Your task to perform on an android device: set an alarm Image 0: 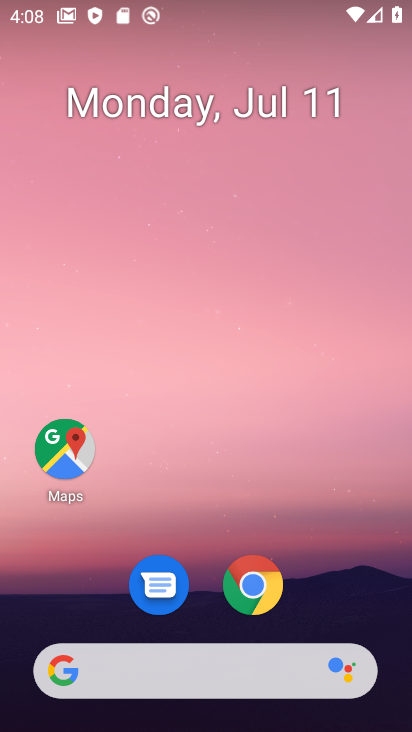
Step 0: drag from (312, 611) to (272, 116)
Your task to perform on an android device: set an alarm Image 1: 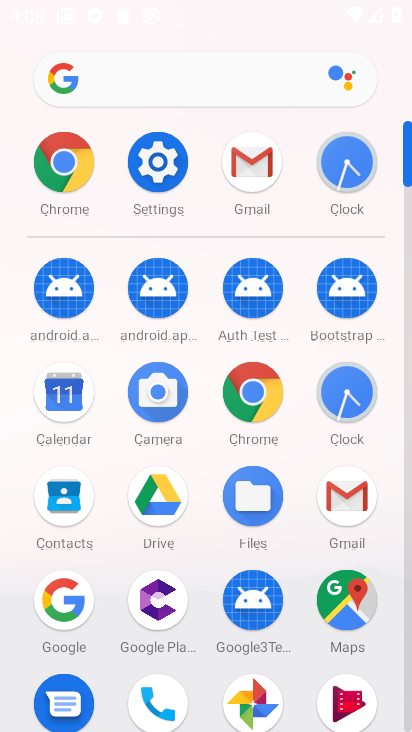
Step 1: click (338, 179)
Your task to perform on an android device: set an alarm Image 2: 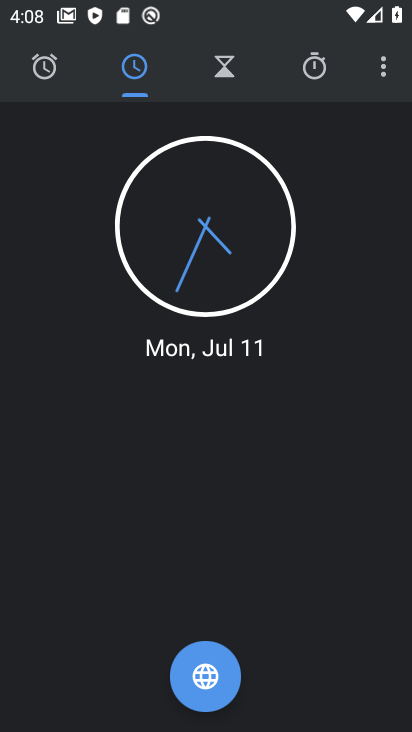
Step 2: click (51, 69)
Your task to perform on an android device: set an alarm Image 3: 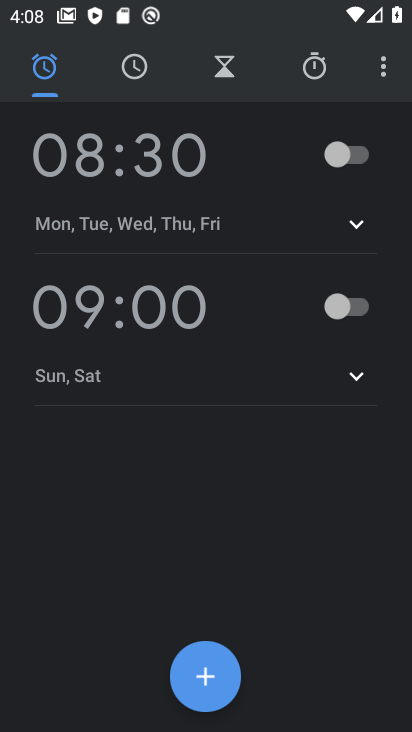
Step 3: click (193, 683)
Your task to perform on an android device: set an alarm Image 4: 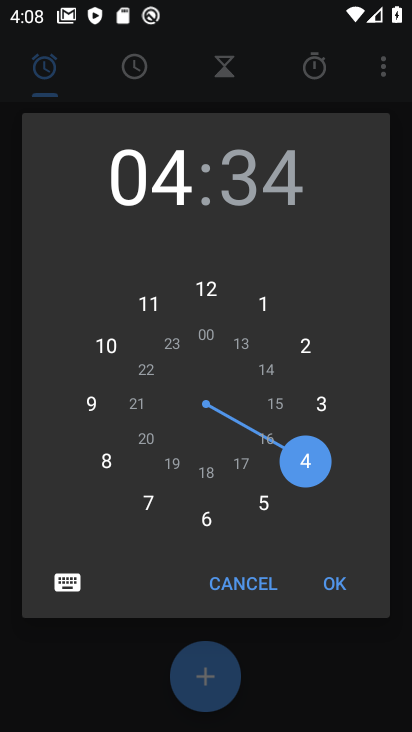
Step 4: click (258, 181)
Your task to perform on an android device: set an alarm Image 5: 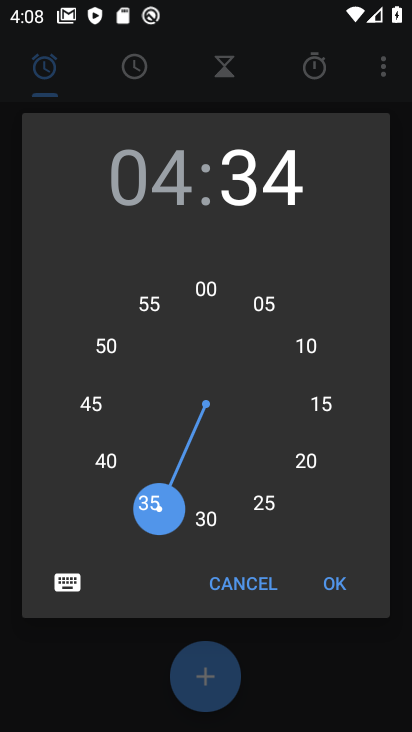
Step 5: click (212, 286)
Your task to perform on an android device: set an alarm Image 6: 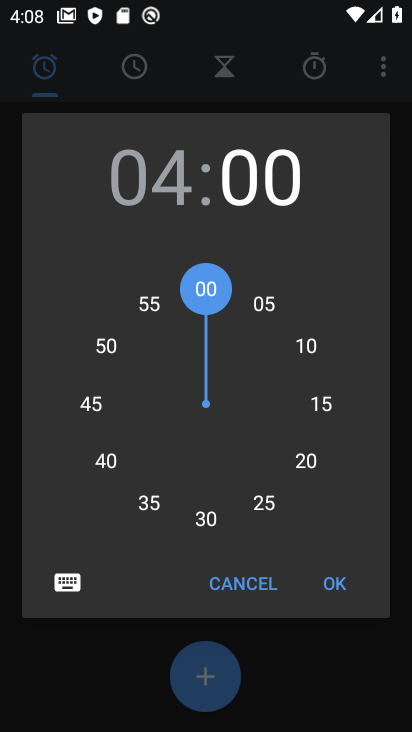
Step 6: click (329, 579)
Your task to perform on an android device: set an alarm Image 7: 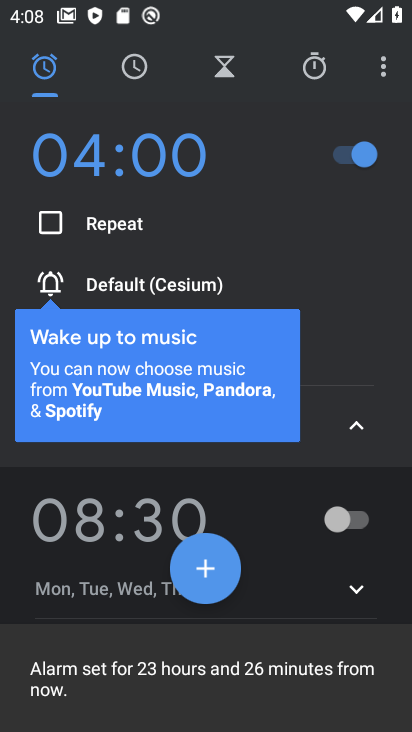
Step 7: task complete